Your task to perform on an android device: install app "WhatsApp Messenger" Image 0: 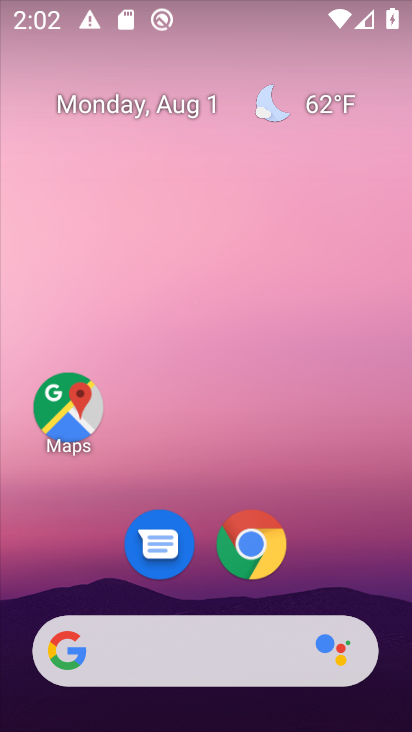
Step 0: drag from (328, 575) to (203, 68)
Your task to perform on an android device: install app "WhatsApp Messenger" Image 1: 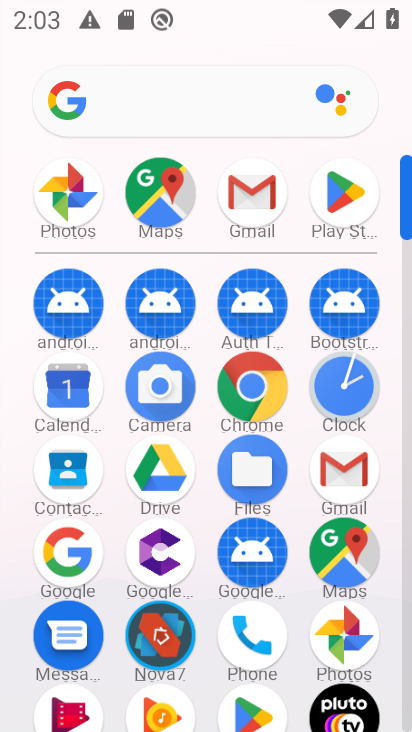
Step 1: click (337, 203)
Your task to perform on an android device: install app "WhatsApp Messenger" Image 2: 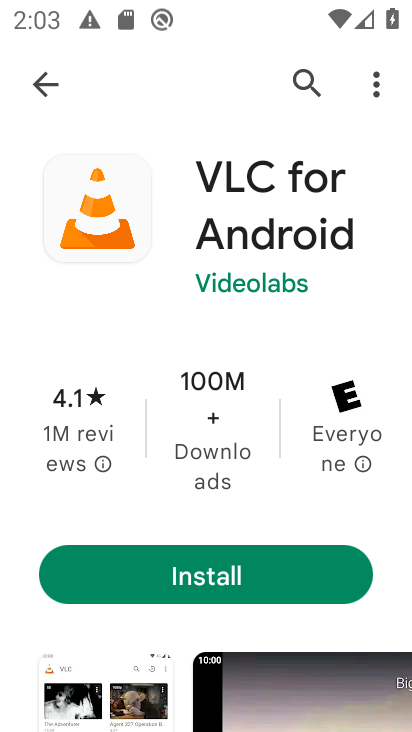
Step 2: press back button
Your task to perform on an android device: install app "WhatsApp Messenger" Image 3: 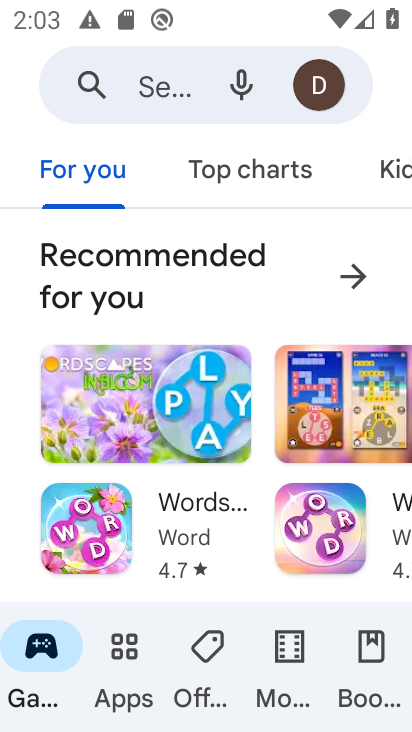
Step 3: click (145, 76)
Your task to perform on an android device: install app "WhatsApp Messenger" Image 4: 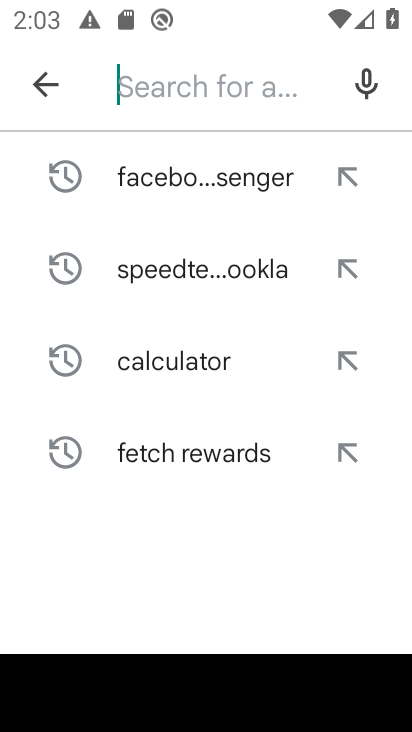
Step 4: type "WhatsApp Messenger"
Your task to perform on an android device: install app "WhatsApp Messenger" Image 5: 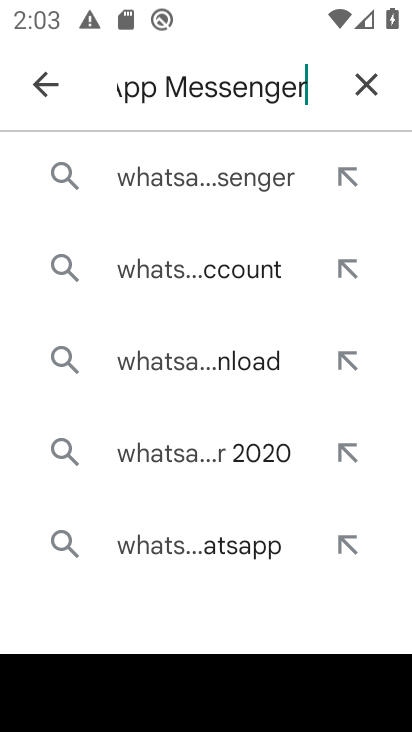
Step 5: click (128, 173)
Your task to perform on an android device: install app "WhatsApp Messenger" Image 6: 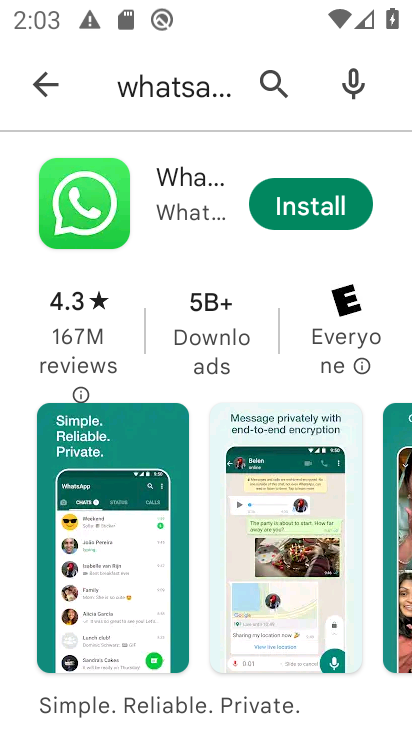
Step 6: click (297, 212)
Your task to perform on an android device: install app "WhatsApp Messenger" Image 7: 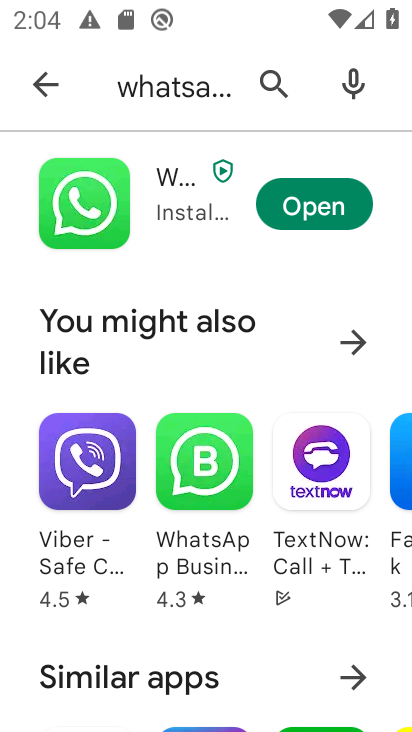
Step 7: task complete